Your task to perform on an android device: Open the phone app and click the voicemail tab. Image 0: 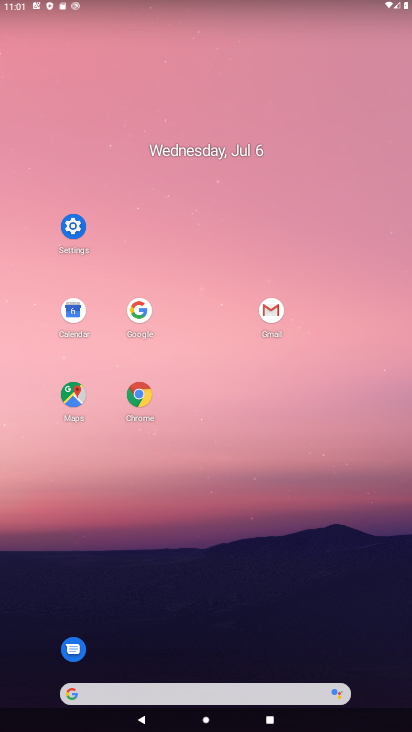
Step 0: drag from (251, 645) to (289, 155)
Your task to perform on an android device: Open the phone app and click the voicemail tab. Image 1: 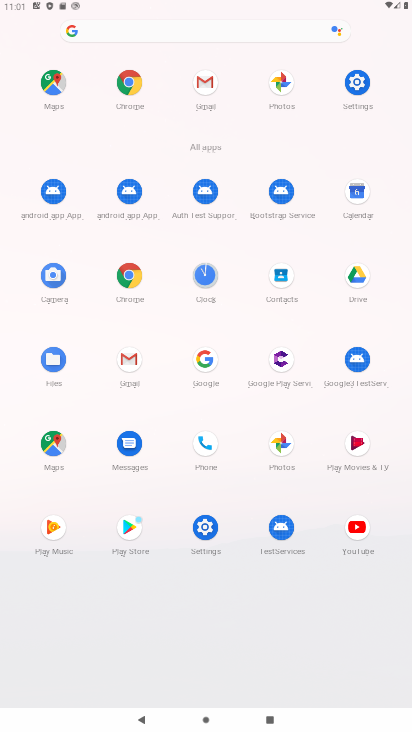
Step 1: click (207, 441)
Your task to perform on an android device: Open the phone app and click the voicemail tab. Image 2: 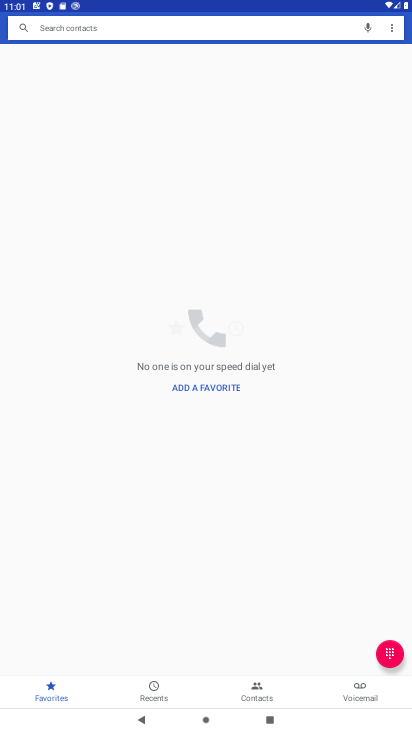
Step 2: click (351, 696)
Your task to perform on an android device: Open the phone app and click the voicemail tab. Image 3: 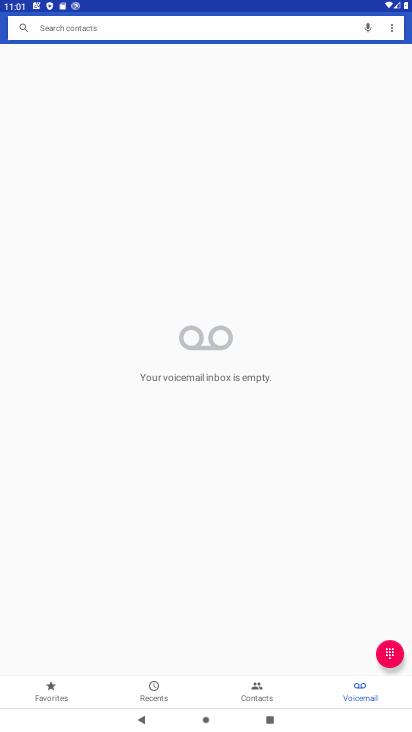
Step 3: task complete